Your task to perform on an android device: Clear the shopping cart on newegg.com. Add "energizer triple a" to the cart on newegg.com, then select checkout. Image 0: 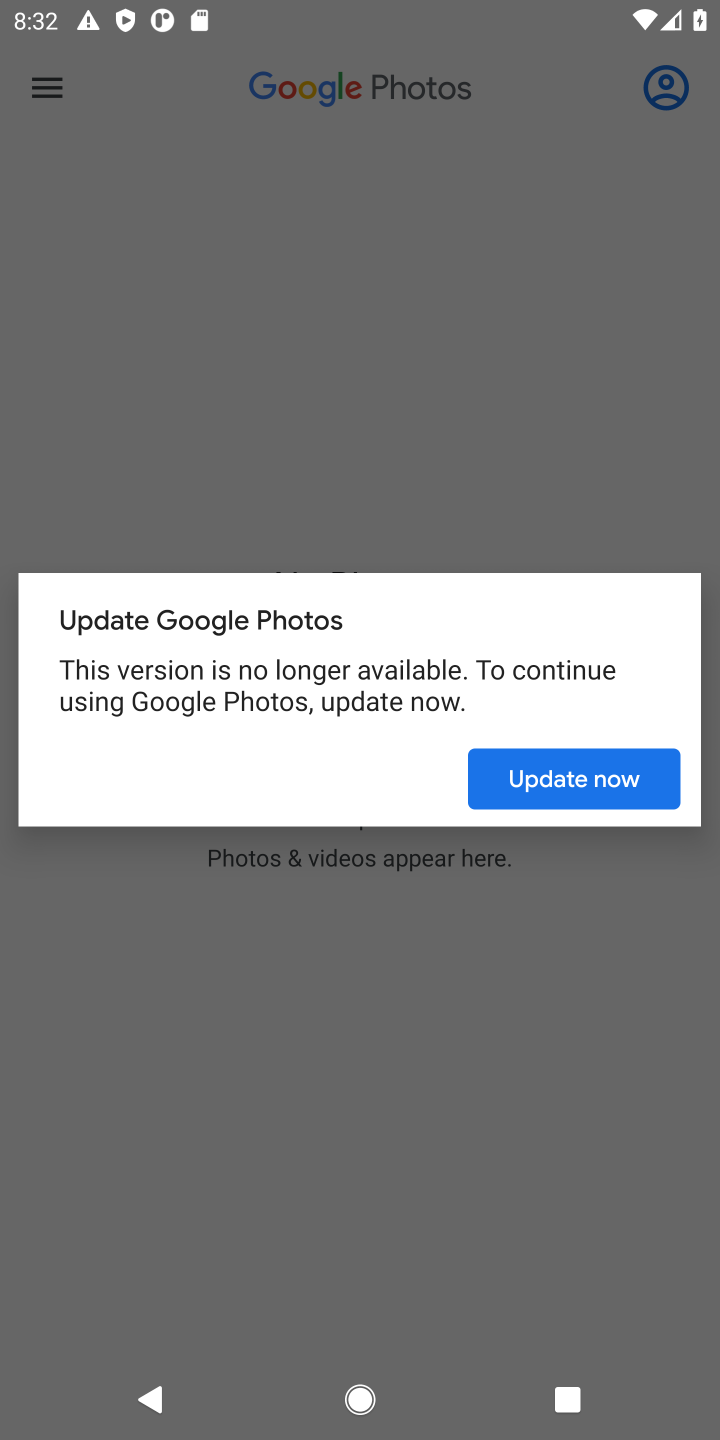
Step 0: press home button
Your task to perform on an android device: Clear the shopping cart on newegg.com. Add "energizer triple a" to the cart on newegg.com, then select checkout. Image 1: 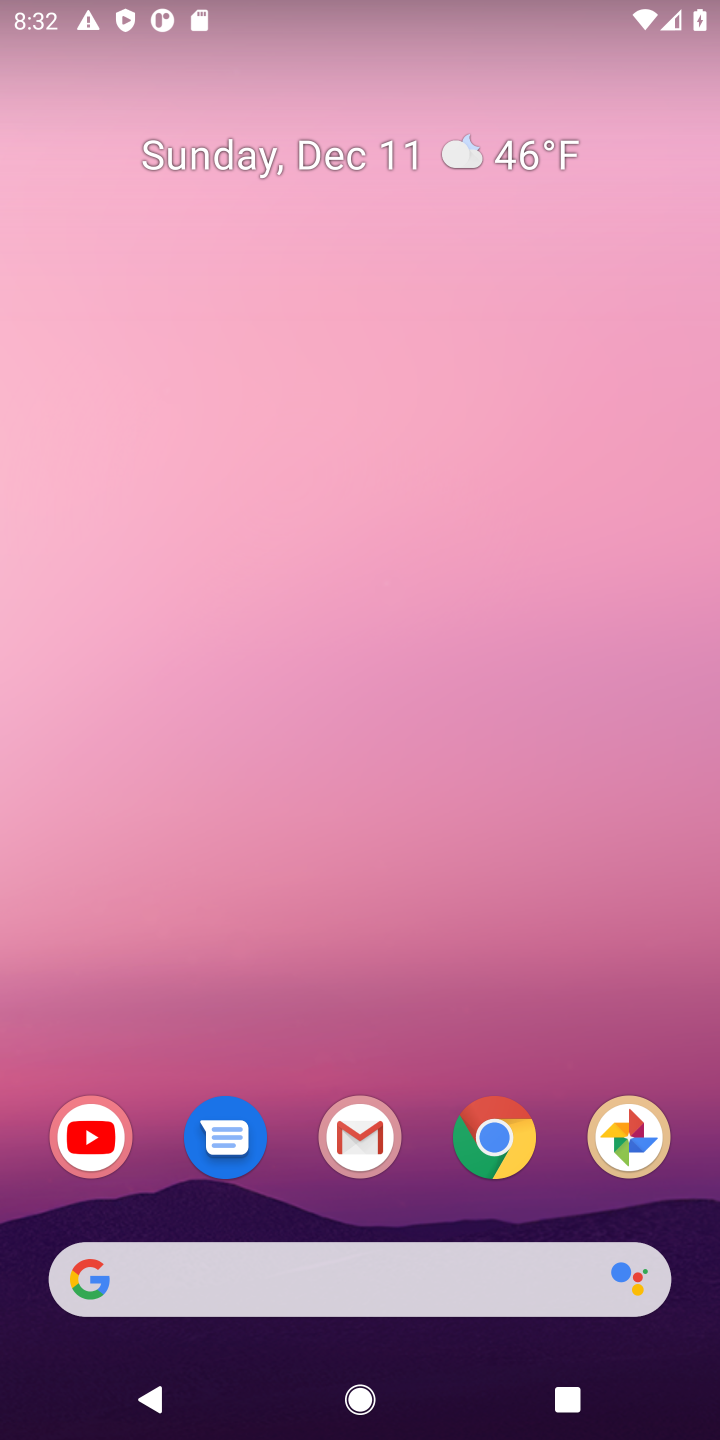
Step 1: click (482, 1142)
Your task to perform on an android device: Clear the shopping cart on newegg.com. Add "energizer triple a" to the cart on newegg.com, then select checkout. Image 2: 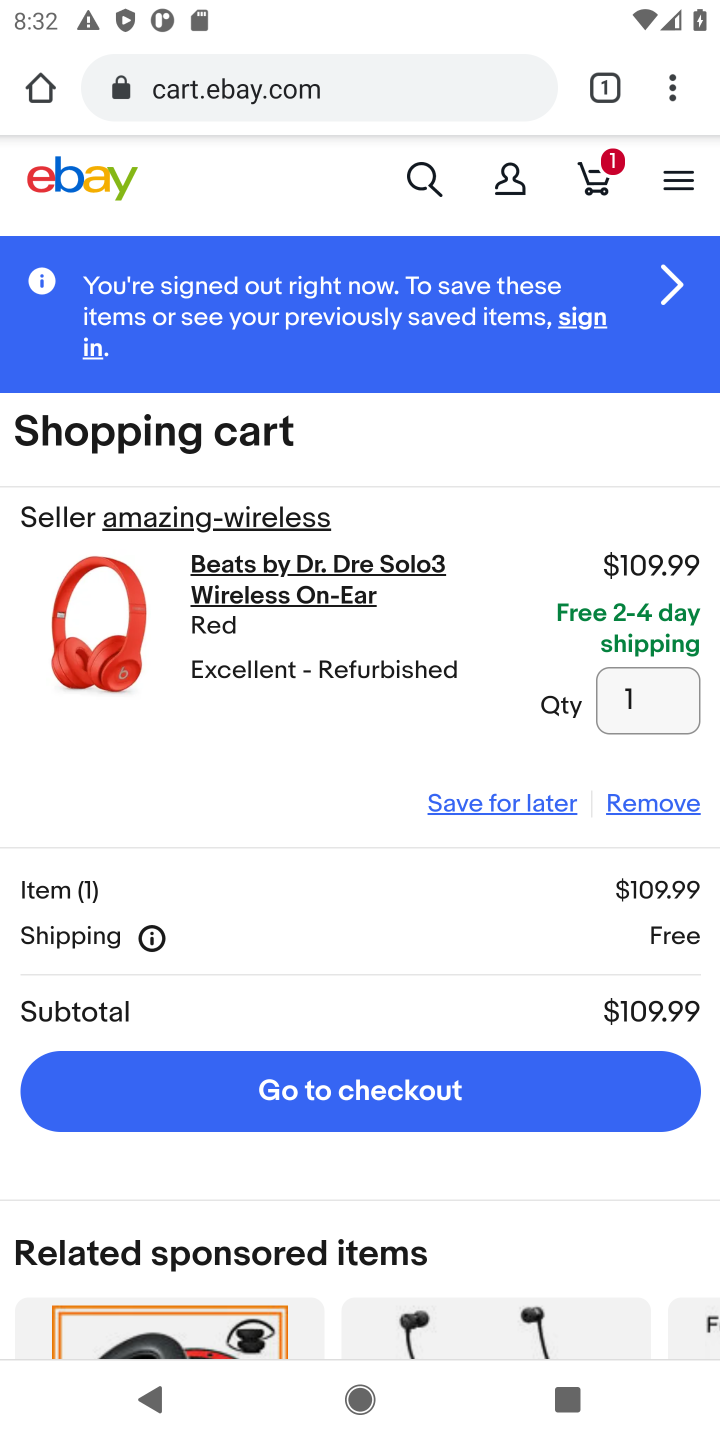
Step 2: click (389, 79)
Your task to perform on an android device: Clear the shopping cart on newegg.com. Add "energizer triple a" to the cart on newegg.com, then select checkout. Image 3: 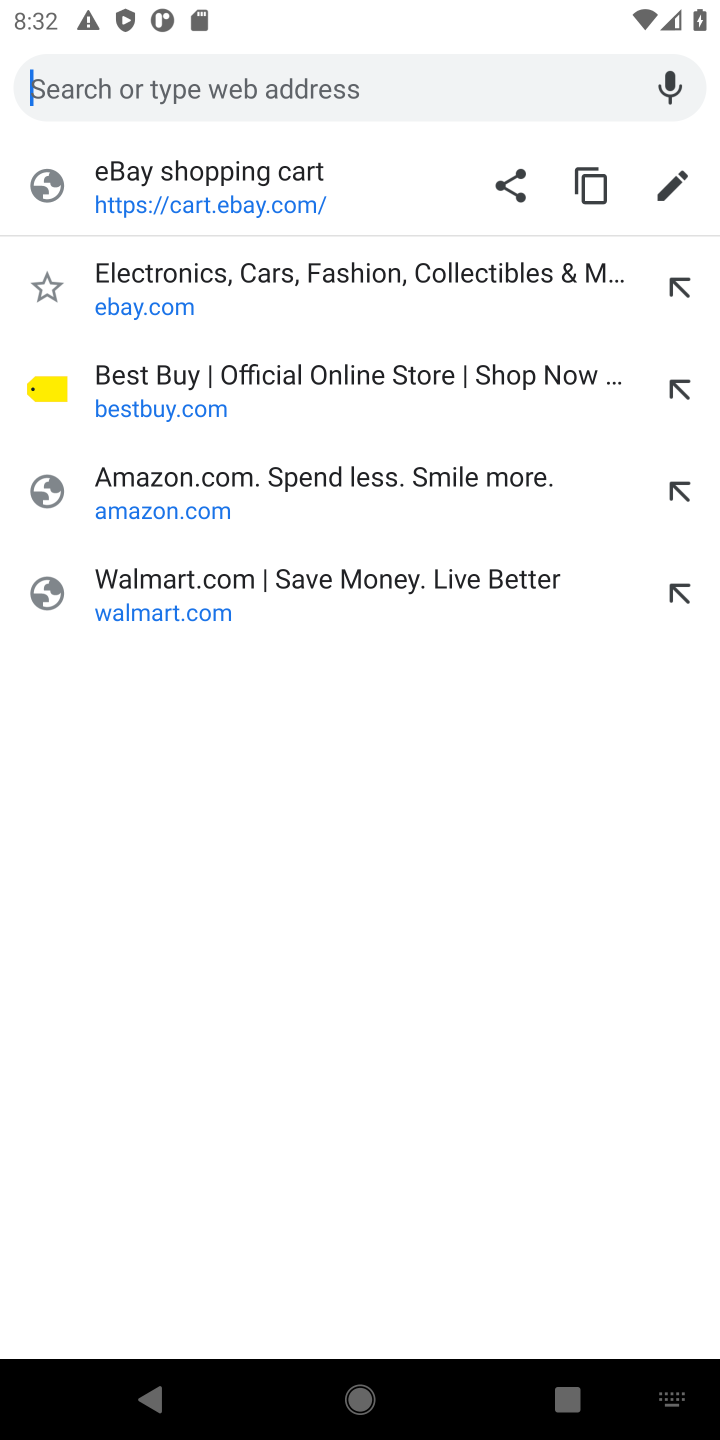
Step 3: type "NEWEGG"
Your task to perform on an android device: Clear the shopping cart on newegg.com. Add "energizer triple a" to the cart on newegg.com, then select checkout. Image 4: 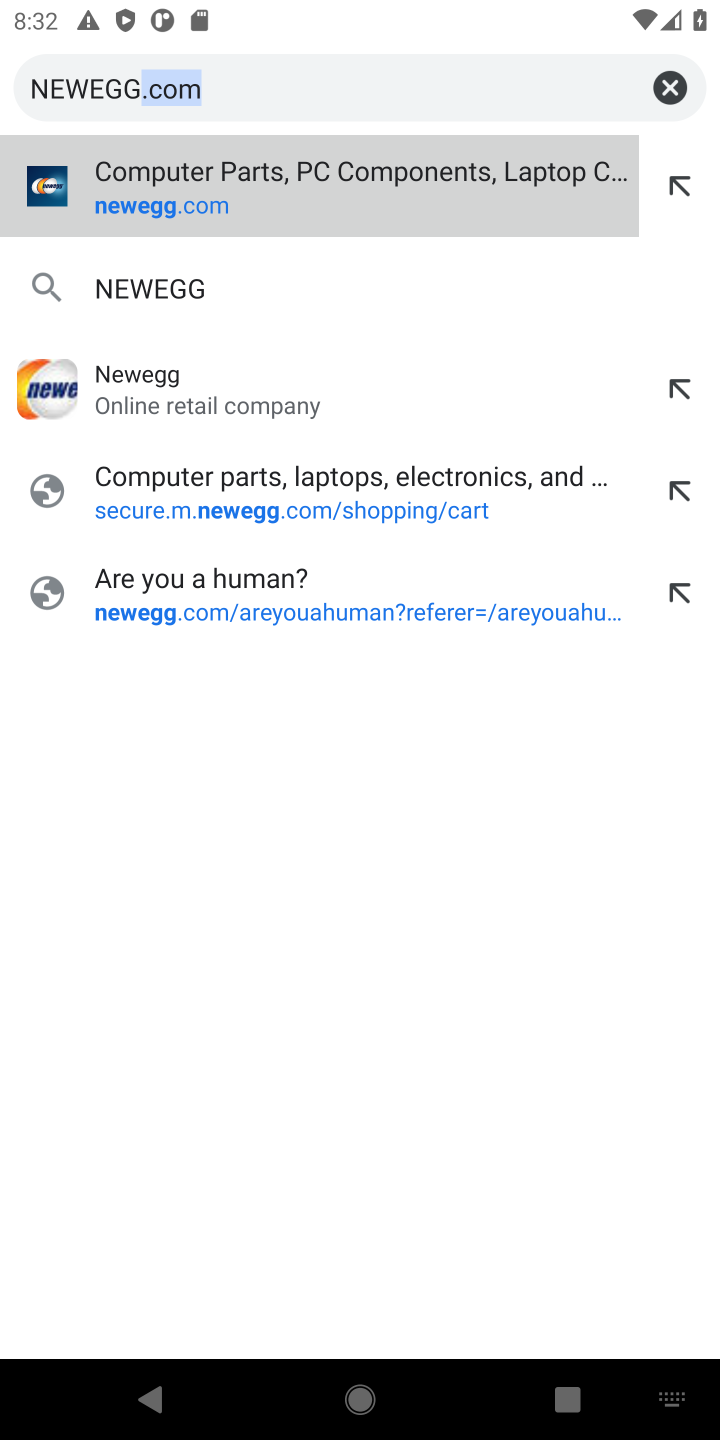
Step 4: click (307, 185)
Your task to perform on an android device: Clear the shopping cart on newegg.com. Add "energizer triple a" to the cart on newegg.com, then select checkout. Image 5: 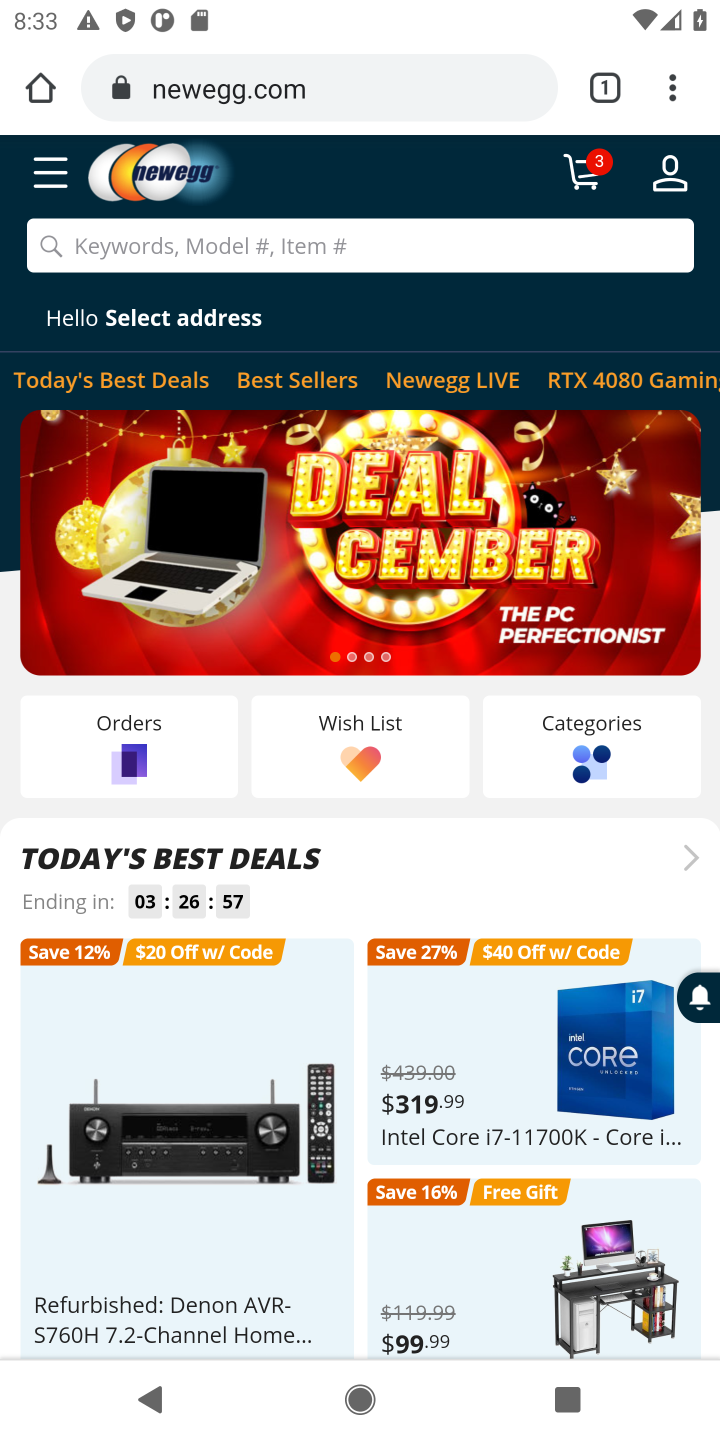
Step 5: click (596, 176)
Your task to perform on an android device: Clear the shopping cart on newegg.com. Add "energizer triple a" to the cart on newegg.com, then select checkout. Image 6: 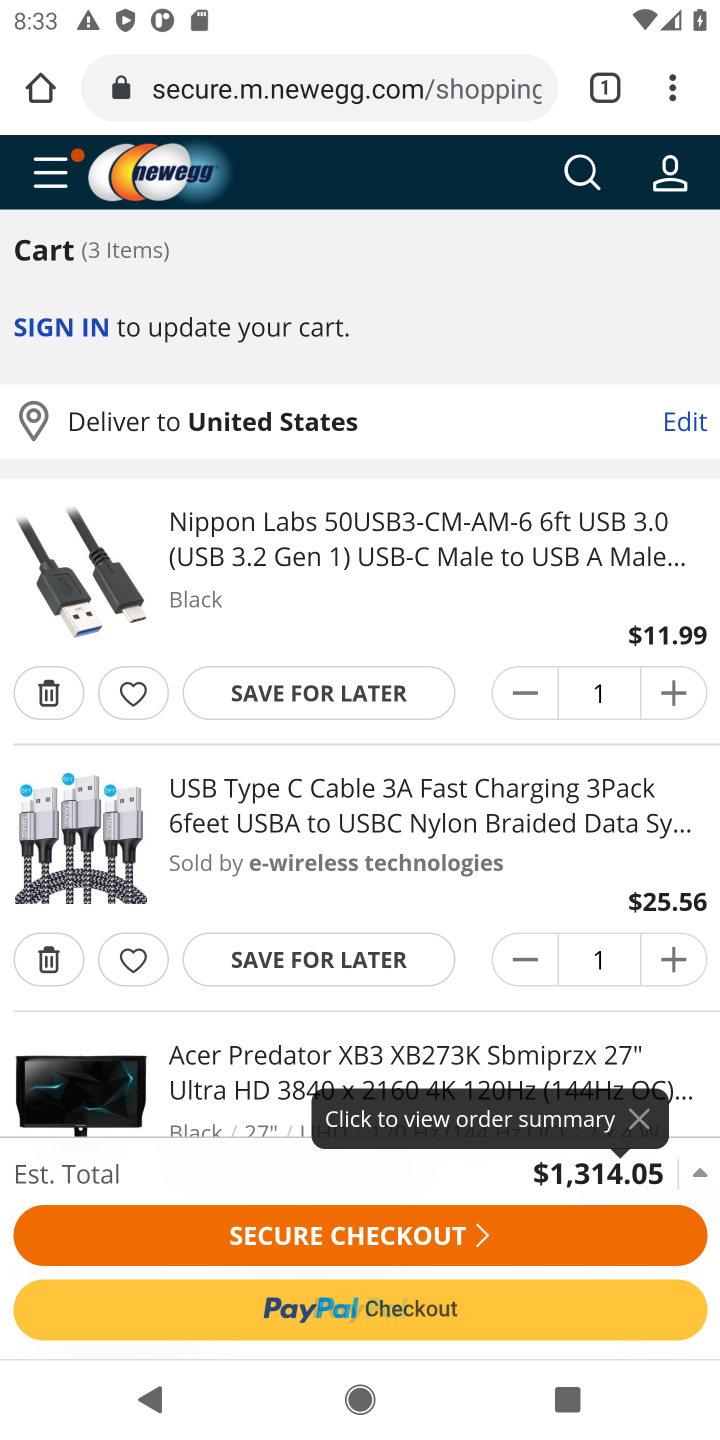
Step 6: click (47, 701)
Your task to perform on an android device: Clear the shopping cart on newegg.com. Add "energizer triple a" to the cart on newegg.com, then select checkout. Image 7: 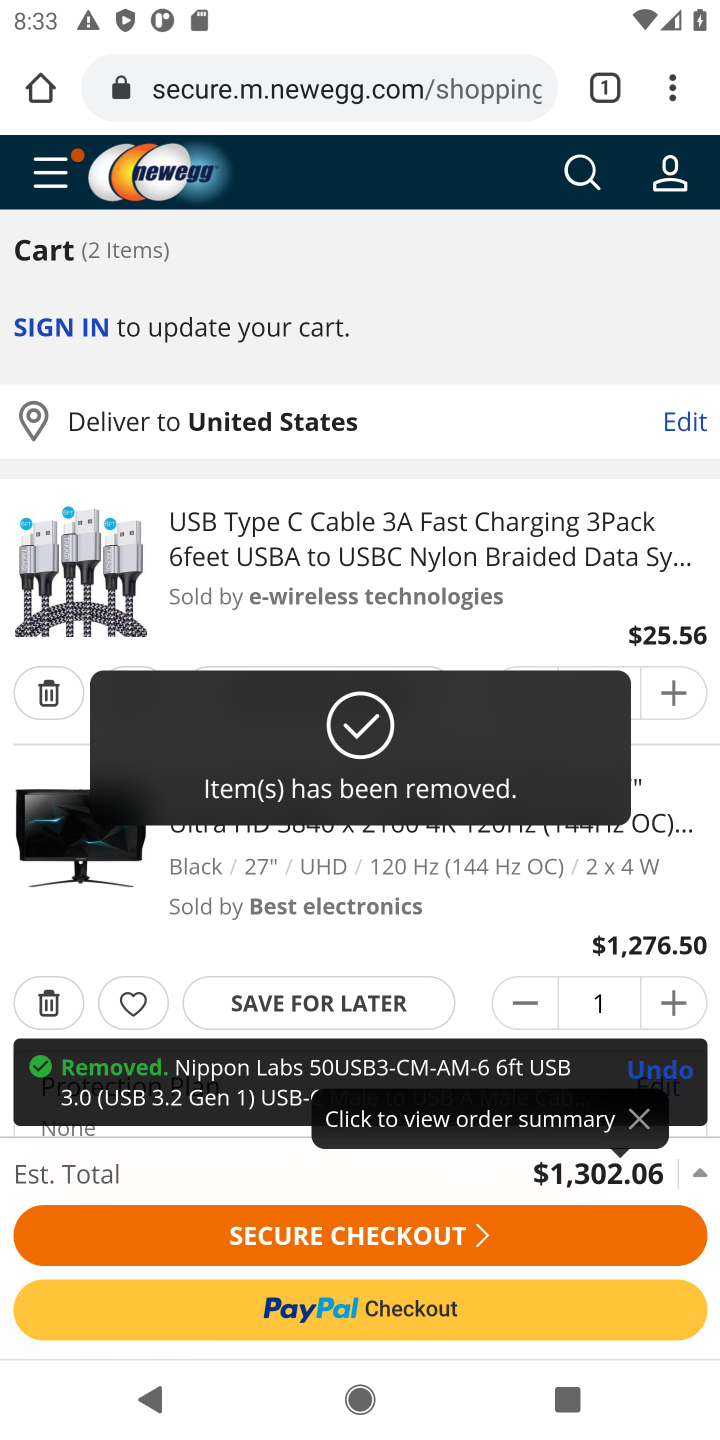
Step 7: click (47, 701)
Your task to perform on an android device: Clear the shopping cart on newegg.com. Add "energizer triple a" to the cart on newegg.com, then select checkout. Image 8: 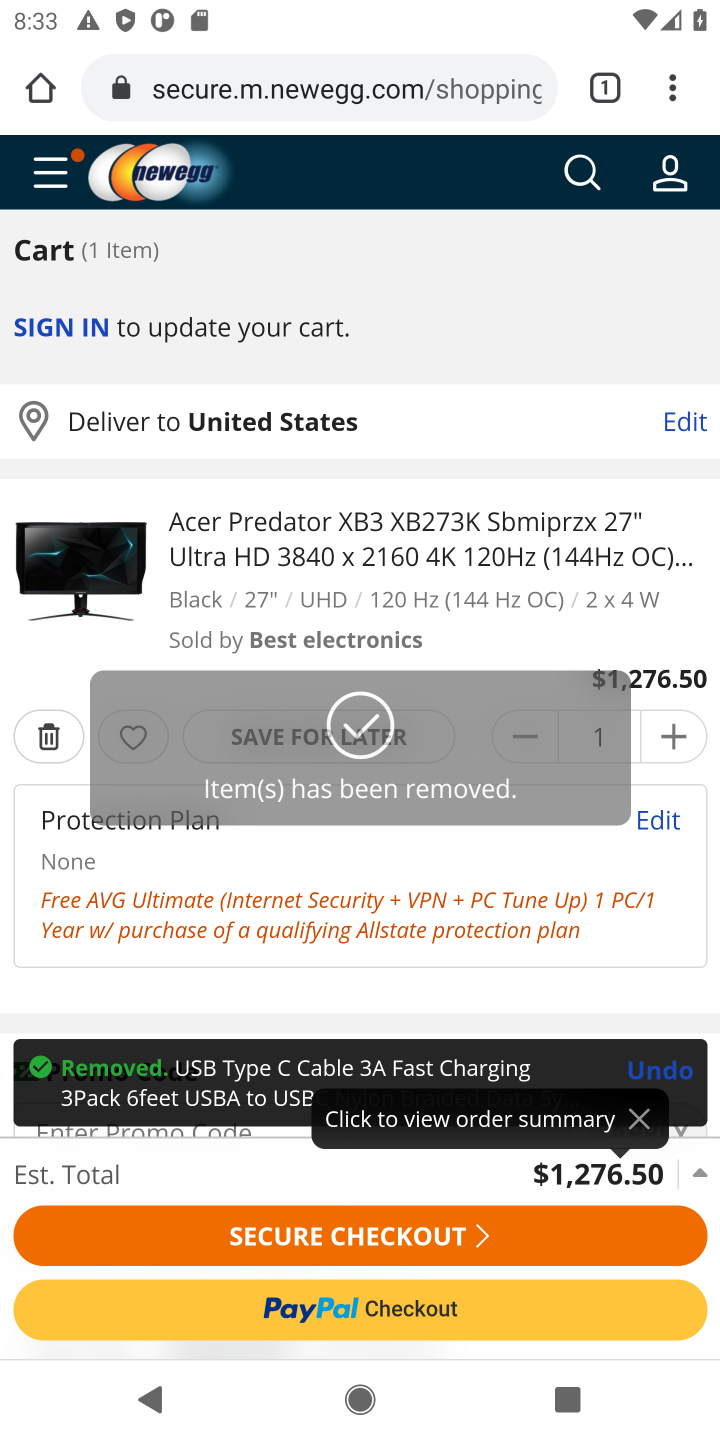
Step 8: click (34, 743)
Your task to perform on an android device: Clear the shopping cart on newegg.com. Add "energizer triple a" to the cart on newegg.com, then select checkout. Image 9: 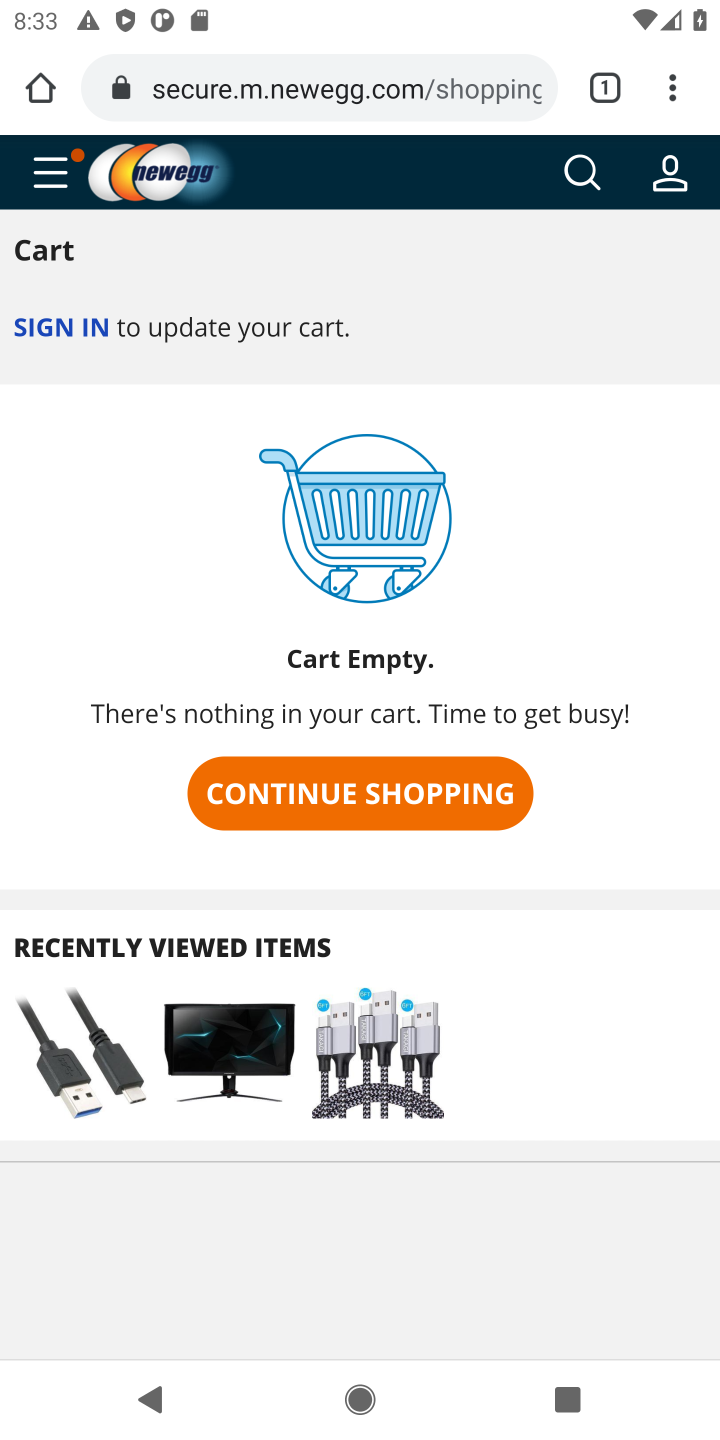
Step 9: click (578, 171)
Your task to perform on an android device: Clear the shopping cart on newegg.com. Add "energizer triple a" to the cart on newegg.com, then select checkout. Image 10: 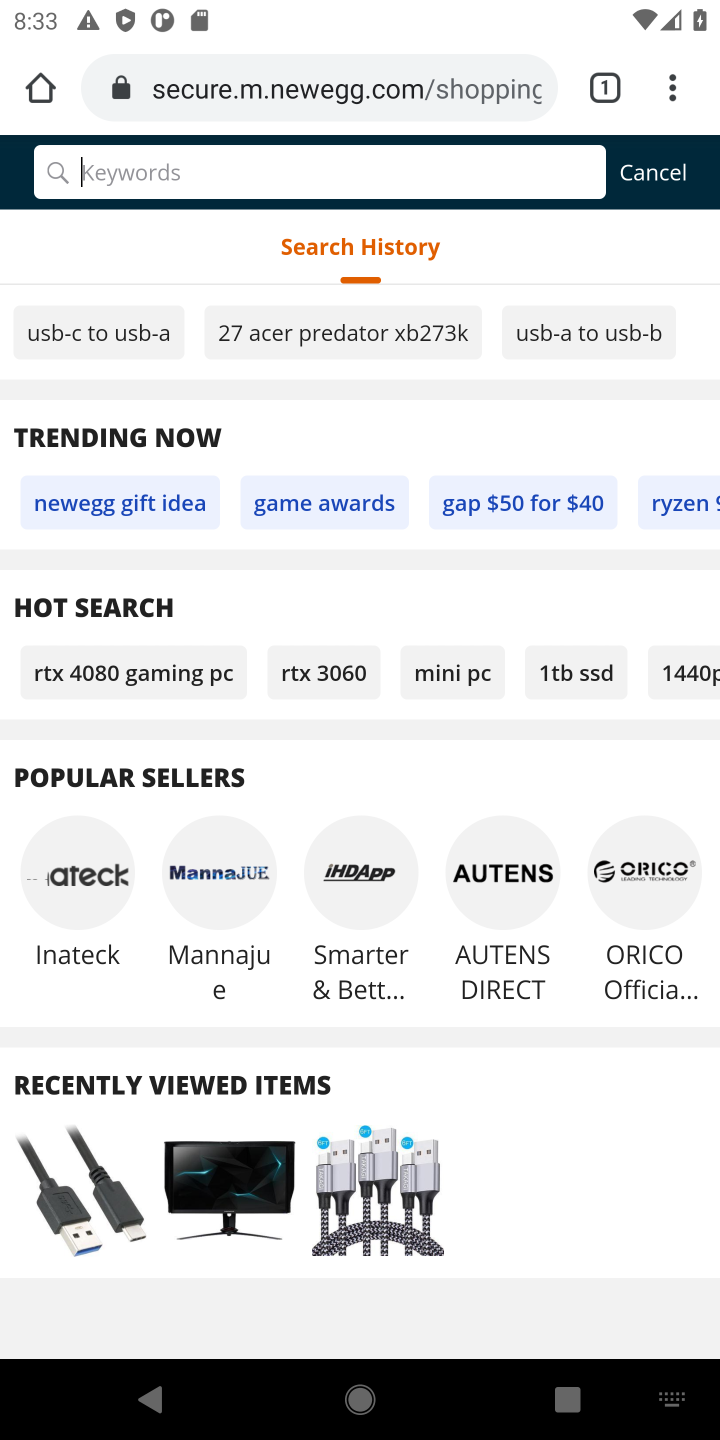
Step 10: type "energizer triple a"
Your task to perform on an android device: Clear the shopping cart on newegg.com. Add "energizer triple a" to the cart on newegg.com, then select checkout. Image 11: 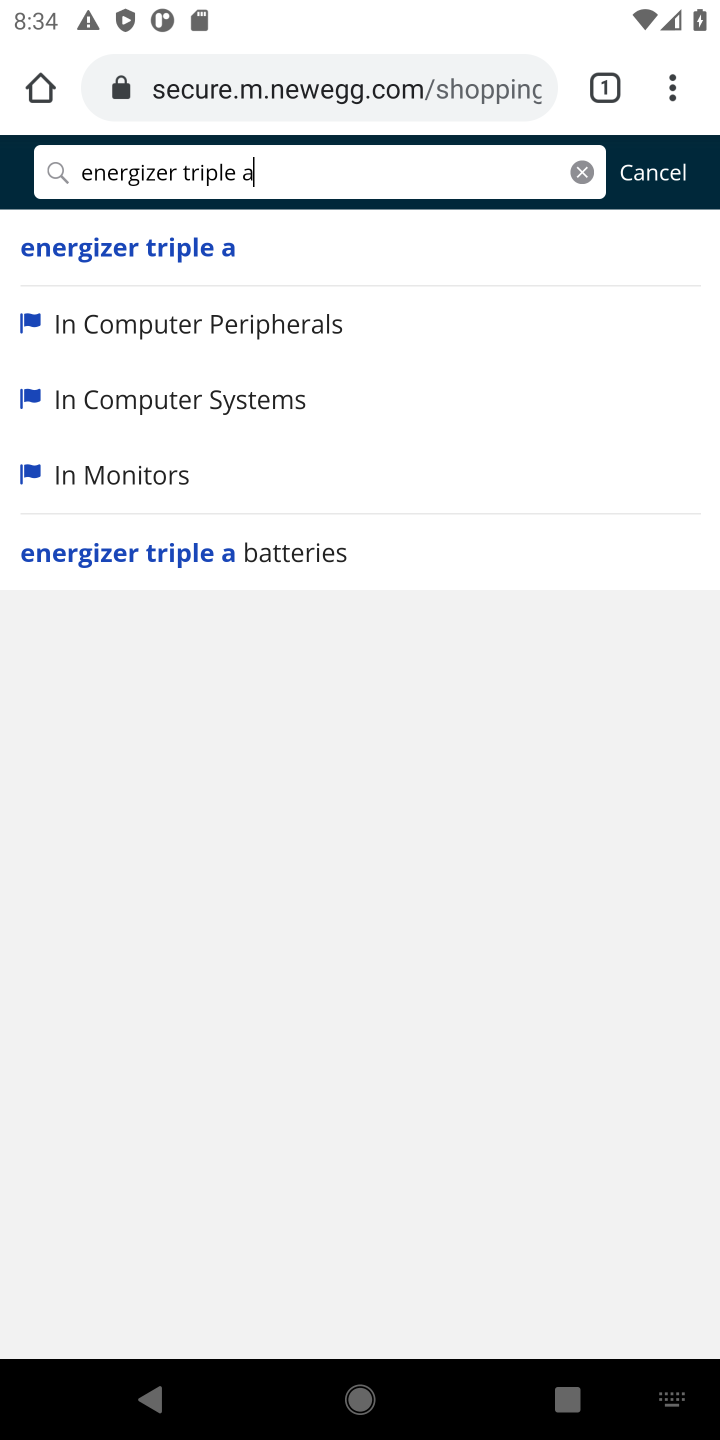
Step 11: click (253, 244)
Your task to perform on an android device: Clear the shopping cart on newegg.com. Add "energizer triple a" to the cart on newegg.com, then select checkout. Image 12: 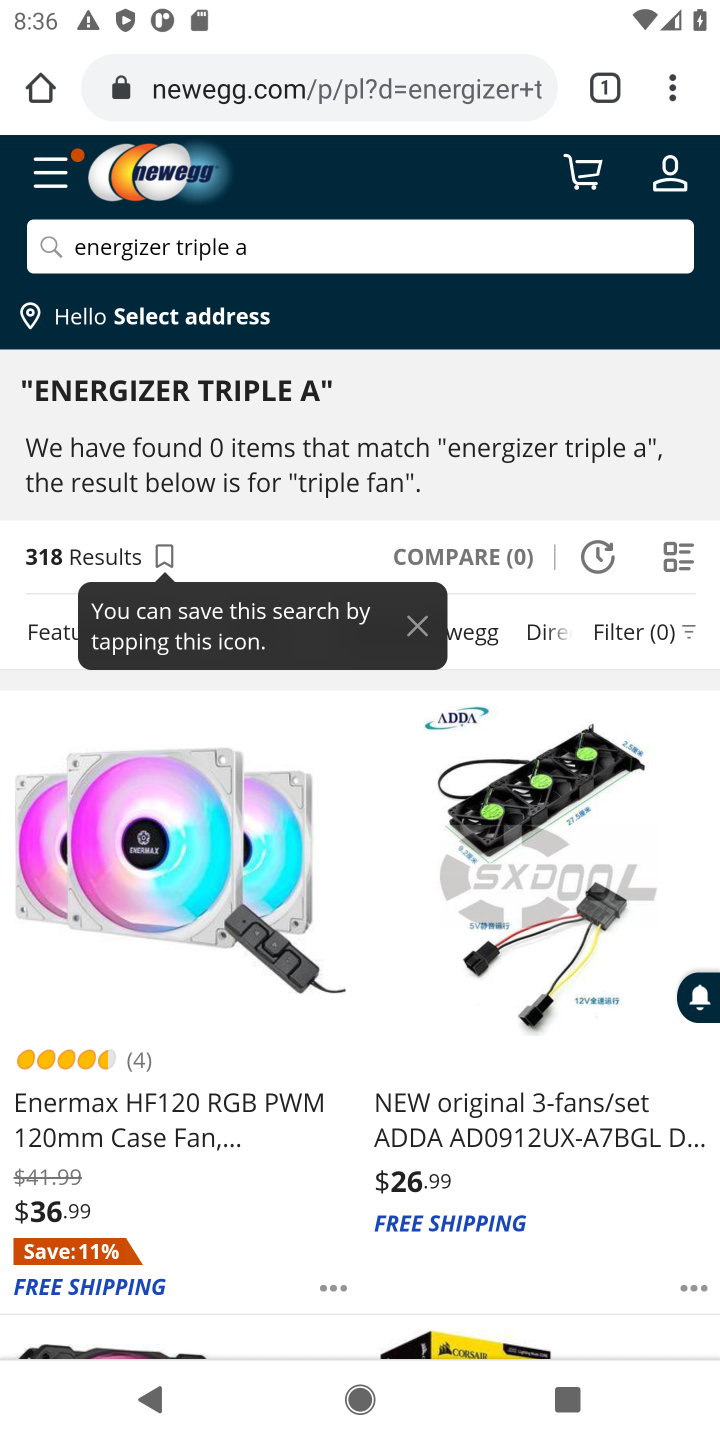
Step 12: click (205, 958)
Your task to perform on an android device: Clear the shopping cart on newegg.com. Add "energizer triple a" to the cart on newegg.com, then select checkout. Image 13: 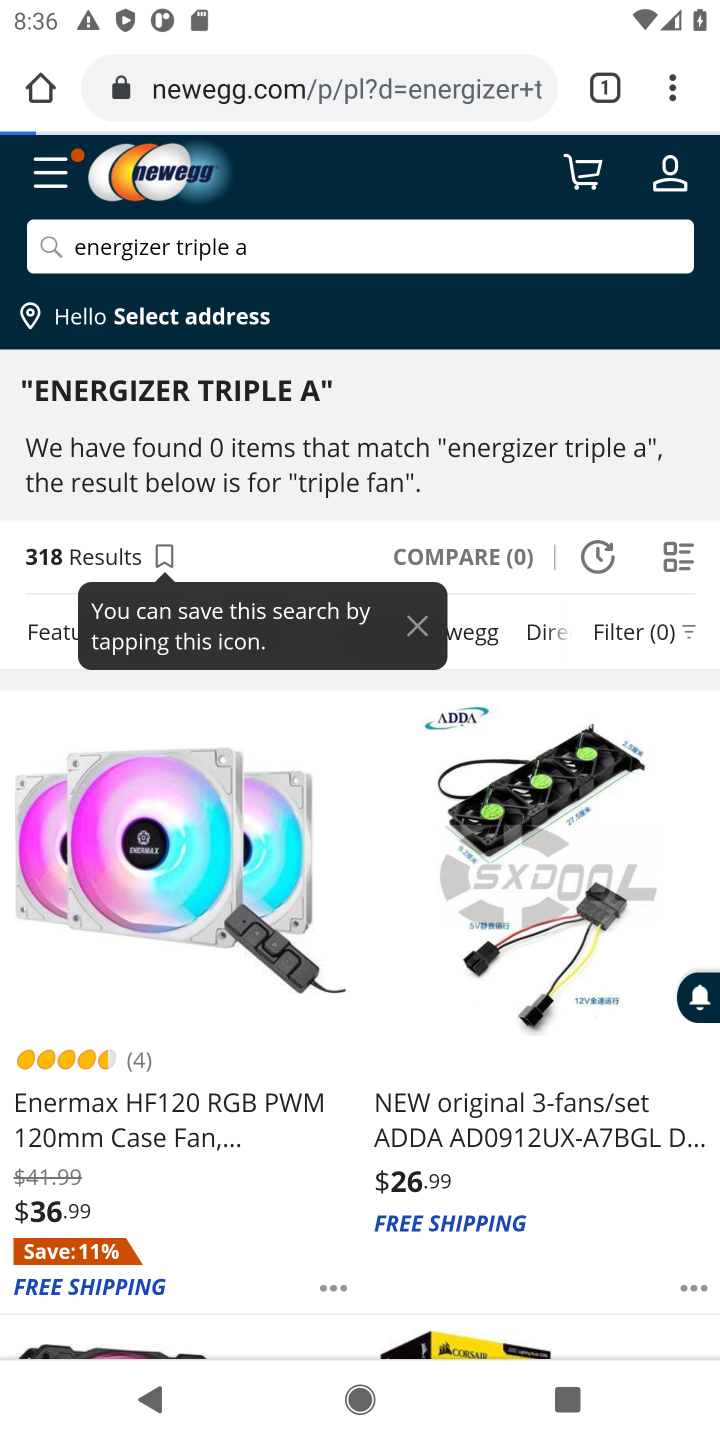
Step 13: task complete